Your task to perform on an android device: set the timer Image 0: 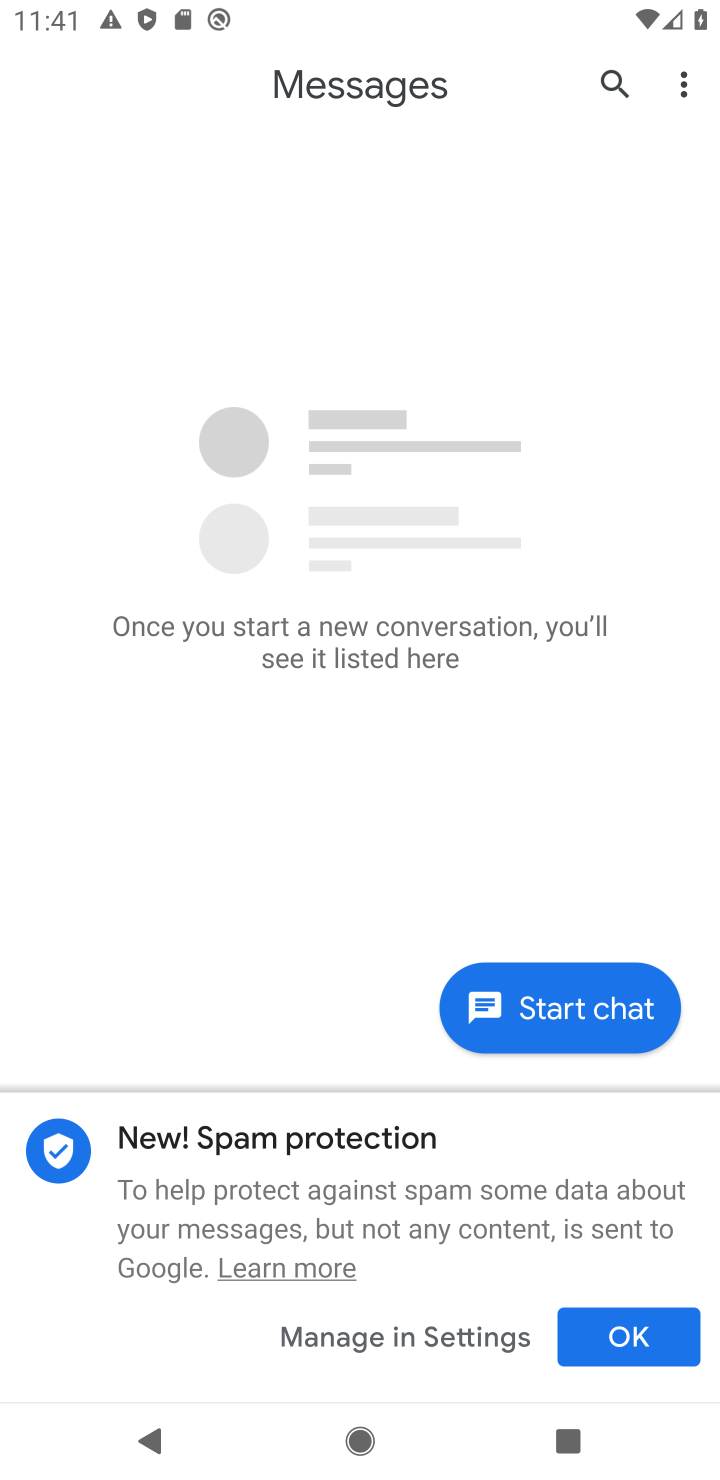
Step 0: click (350, 1443)
Your task to perform on an android device: set the timer Image 1: 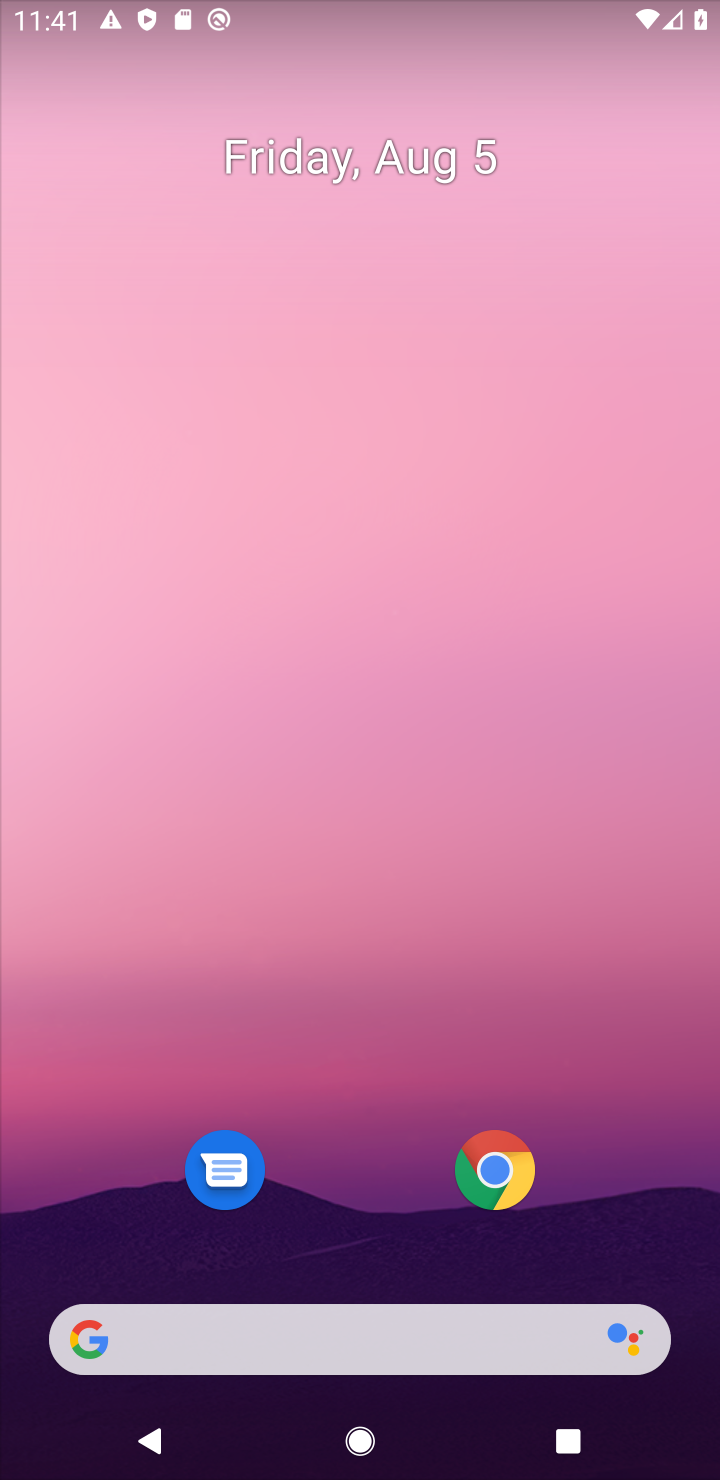
Step 1: drag from (328, 1141) to (478, 110)
Your task to perform on an android device: set the timer Image 2: 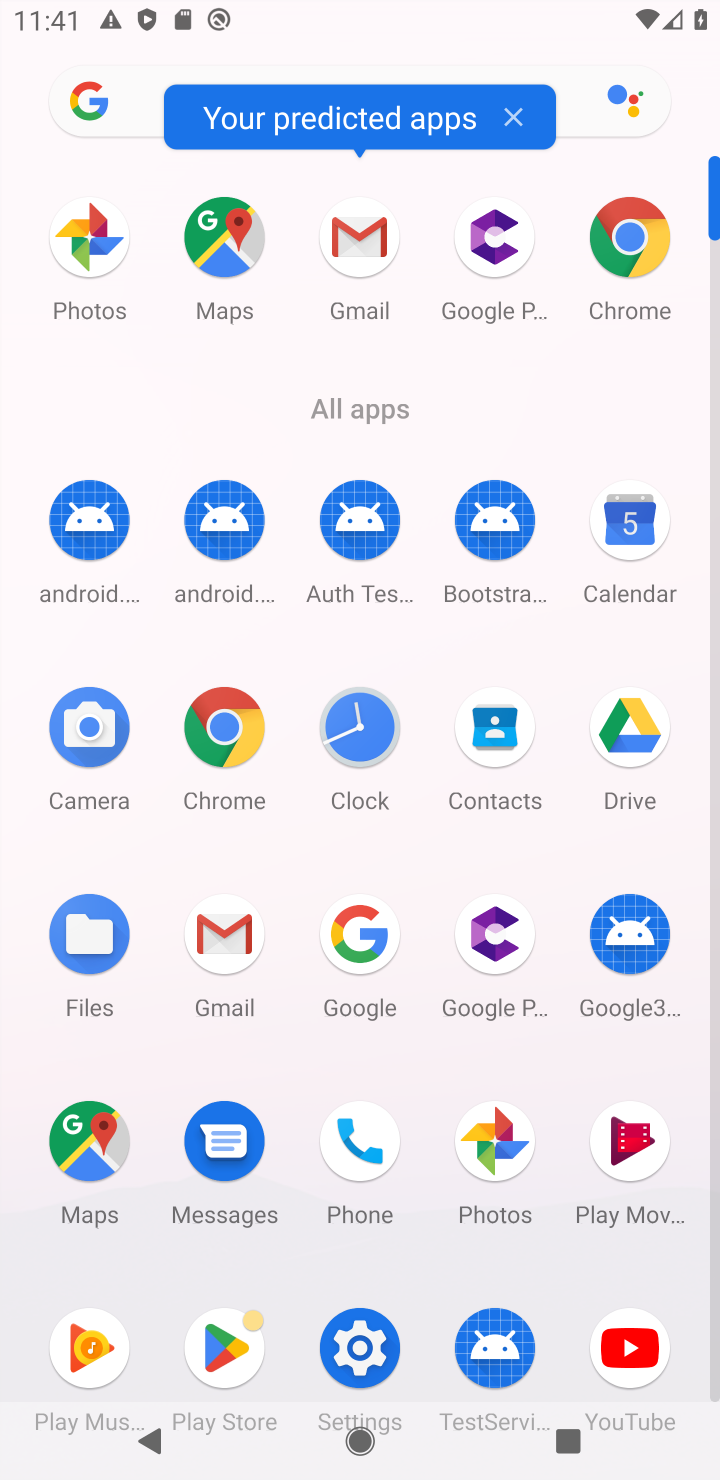
Step 2: drag from (420, 1269) to (429, 1017)
Your task to perform on an android device: set the timer Image 3: 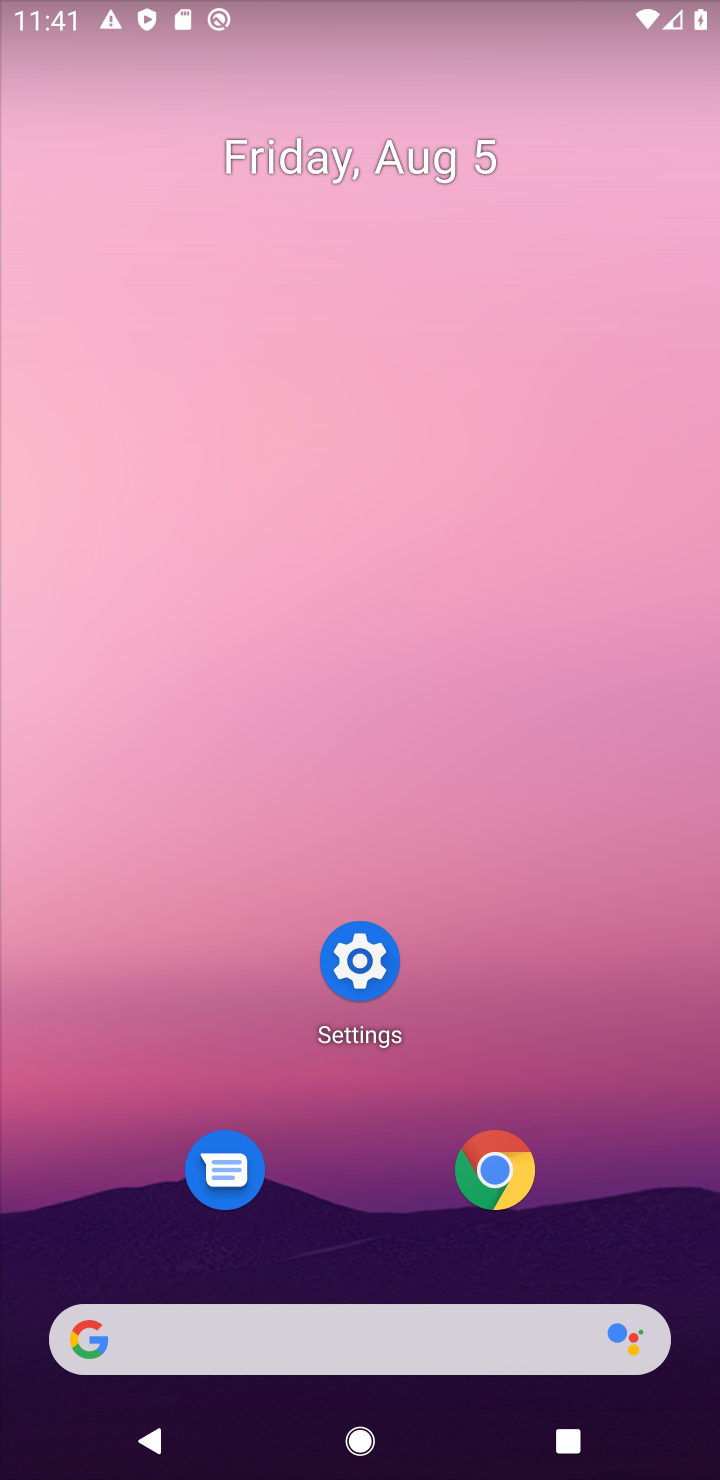
Step 3: drag from (336, 1190) to (423, 59)
Your task to perform on an android device: set the timer Image 4: 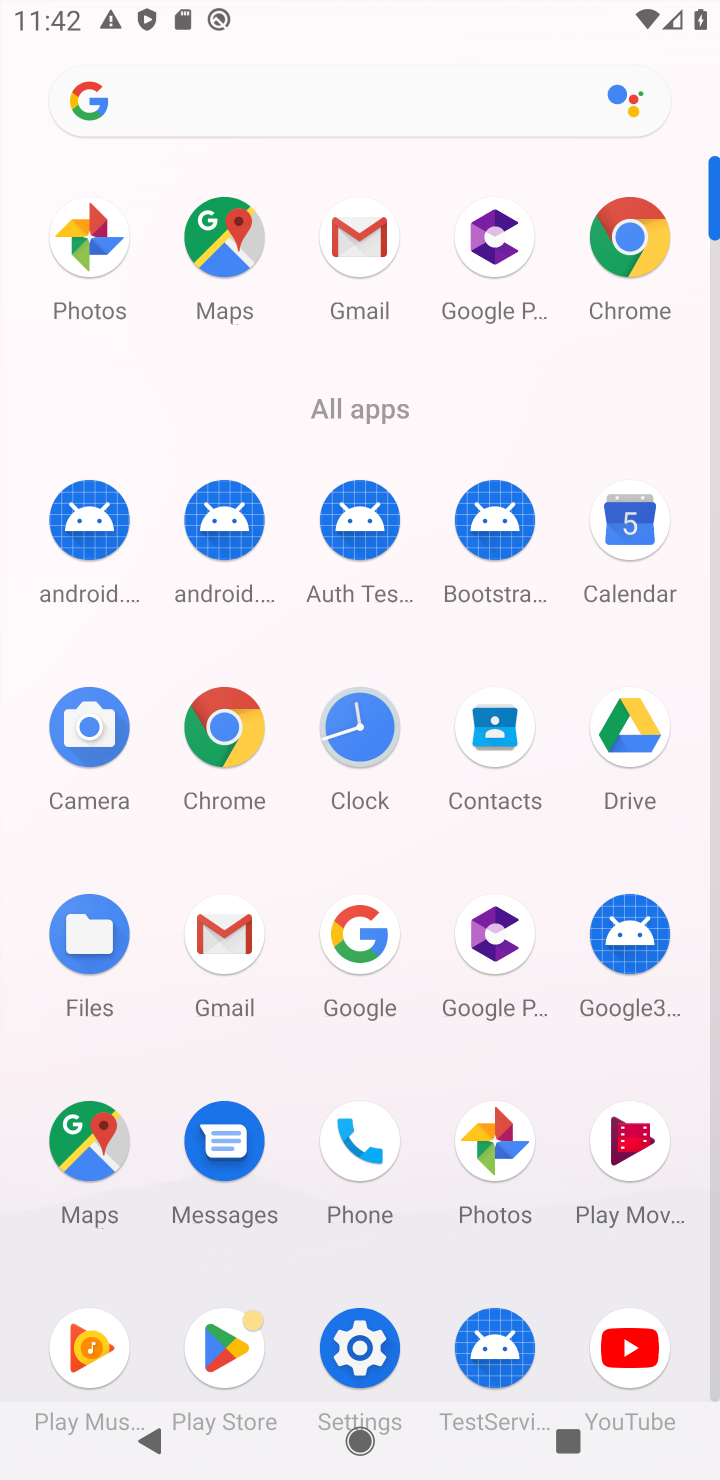
Step 4: click (349, 739)
Your task to perform on an android device: set the timer Image 5: 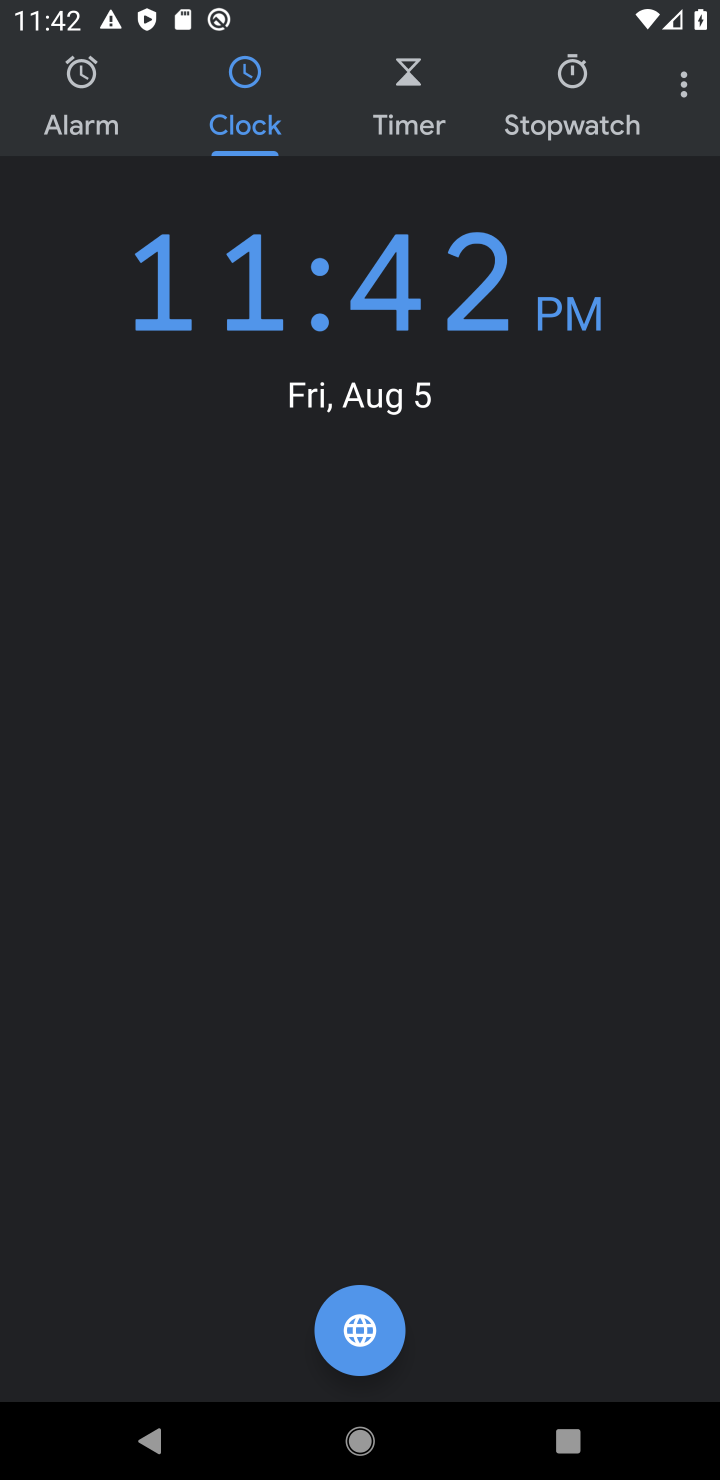
Step 5: click (397, 98)
Your task to perform on an android device: set the timer Image 6: 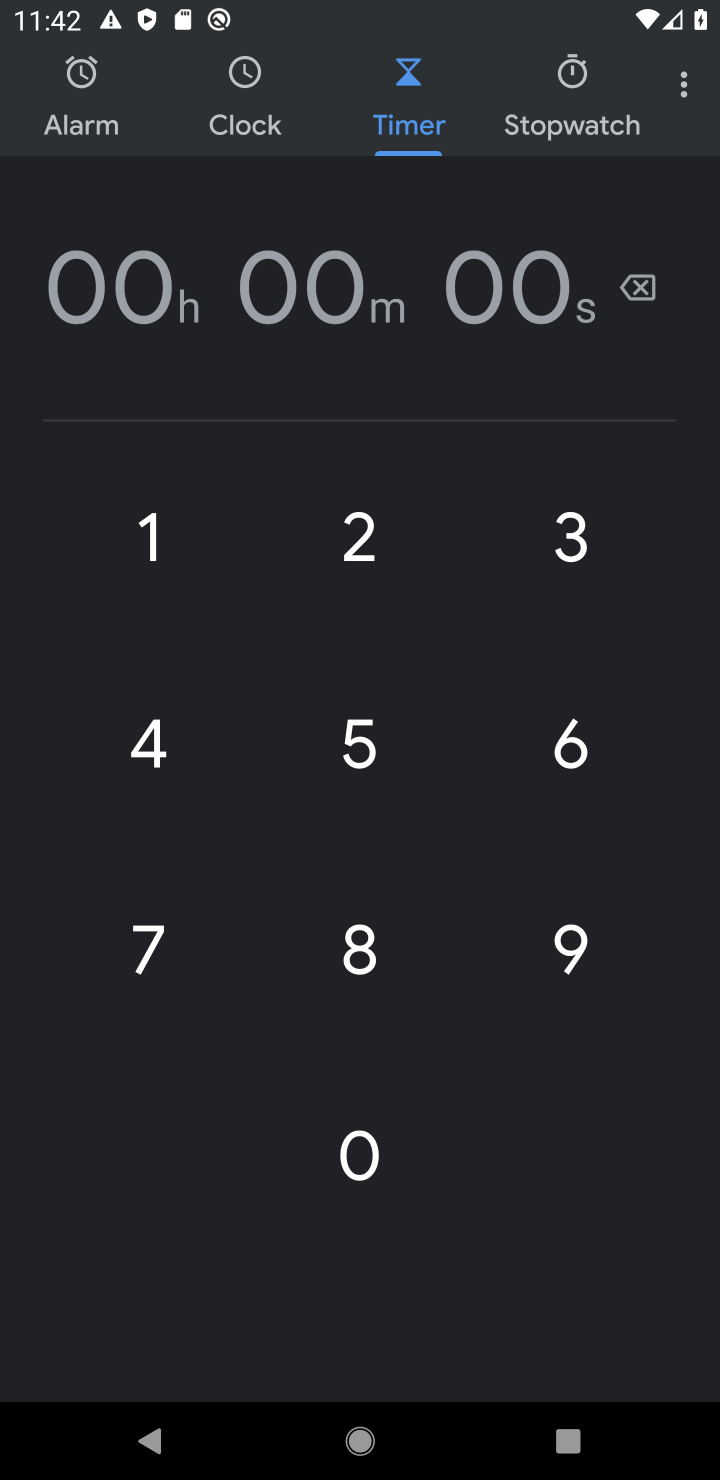
Step 6: click (377, 550)
Your task to perform on an android device: set the timer Image 7: 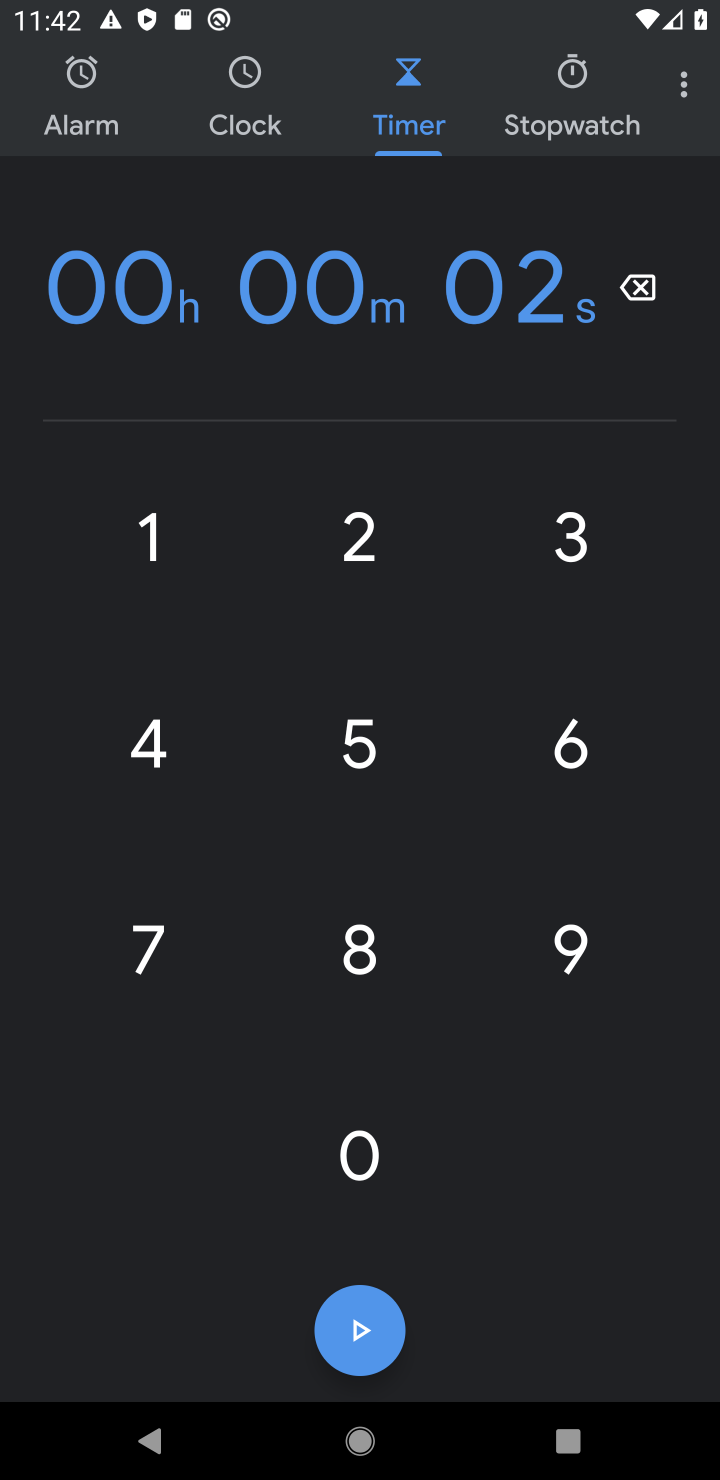
Step 7: click (366, 1153)
Your task to perform on an android device: set the timer Image 8: 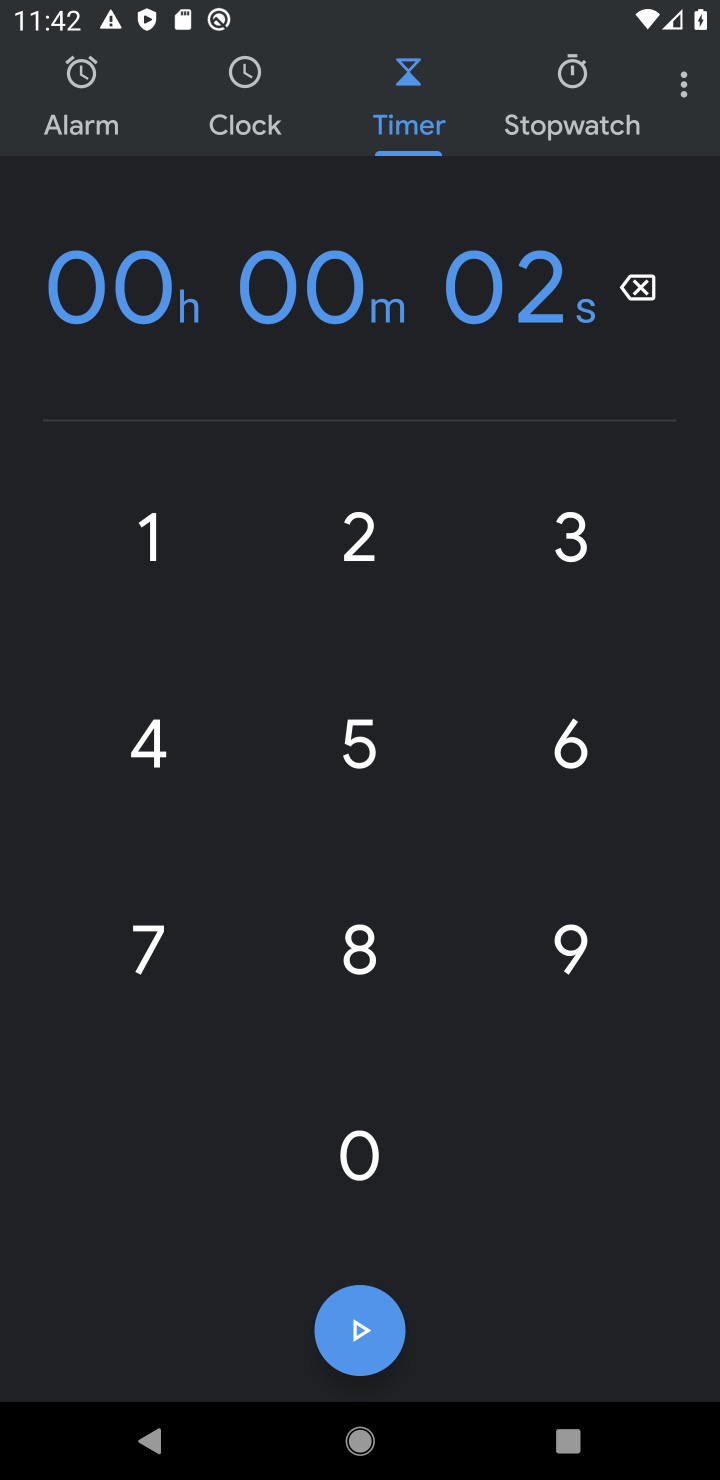
Step 8: click (366, 1153)
Your task to perform on an android device: set the timer Image 9: 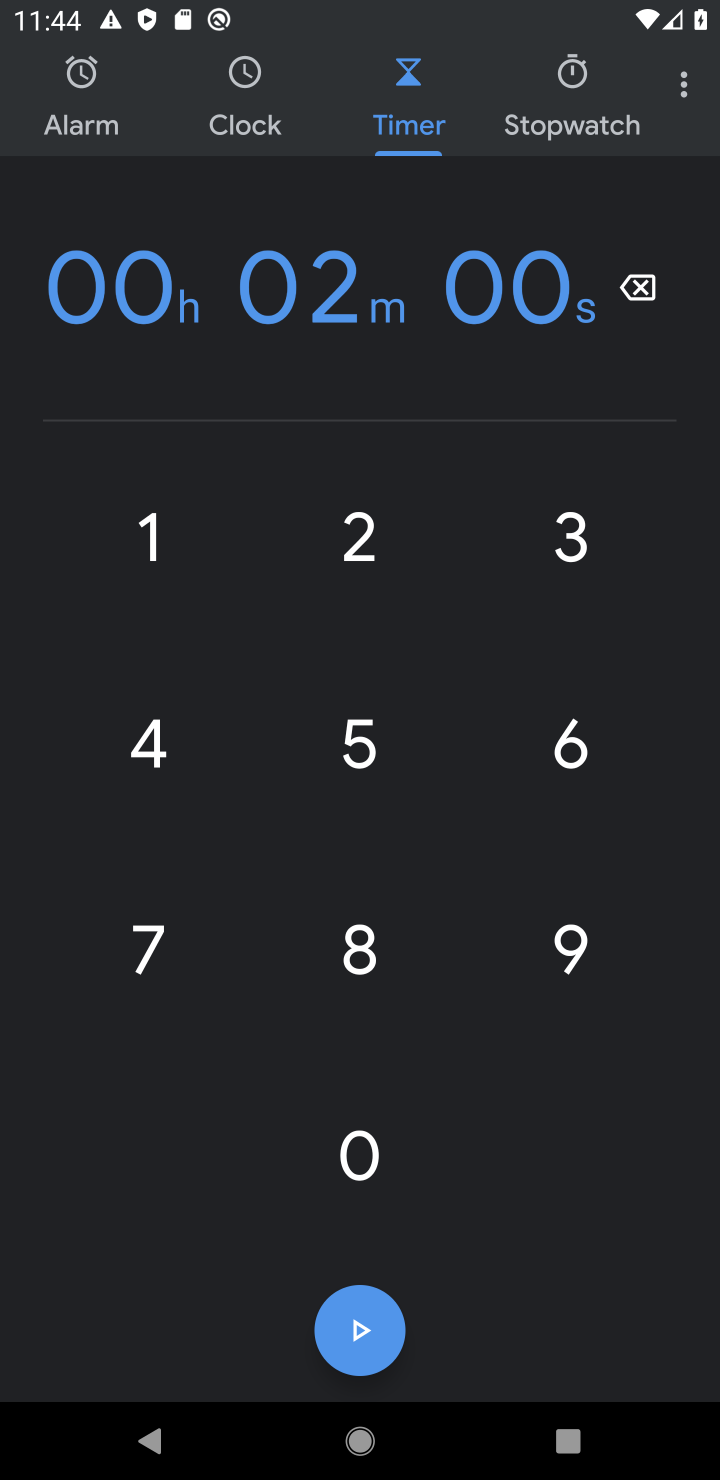
Step 9: task complete